Your task to perform on an android device: empty trash in google photos Image 0: 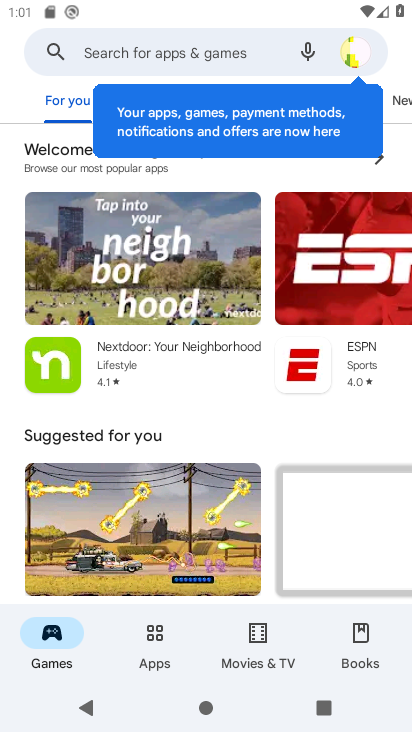
Step 0: press home button
Your task to perform on an android device: empty trash in google photos Image 1: 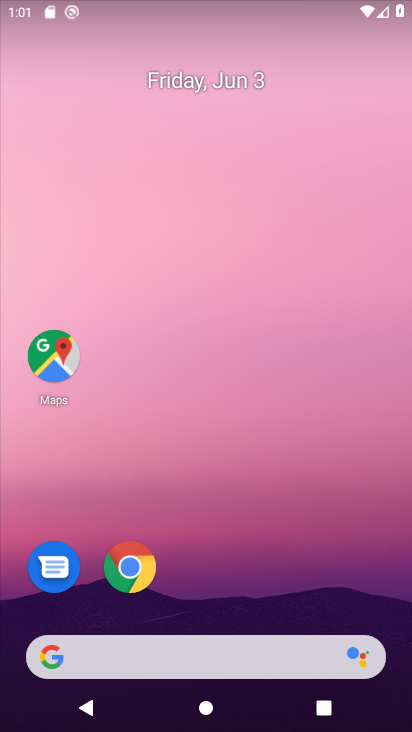
Step 1: drag from (205, 584) to (205, 287)
Your task to perform on an android device: empty trash in google photos Image 2: 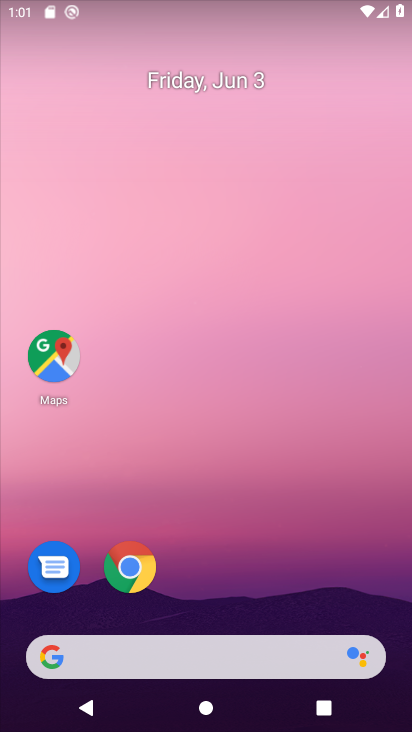
Step 2: drag from (180, 627) to (203, 265)
Your task to perform on an android device: empty trash in google photos Image 3: 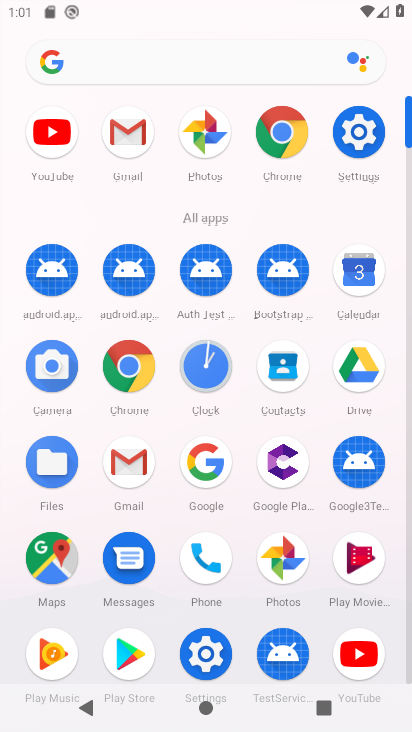
Step 3: click (358, 120)
Your task to perform on an android device: empty trash in google photos Image 4: 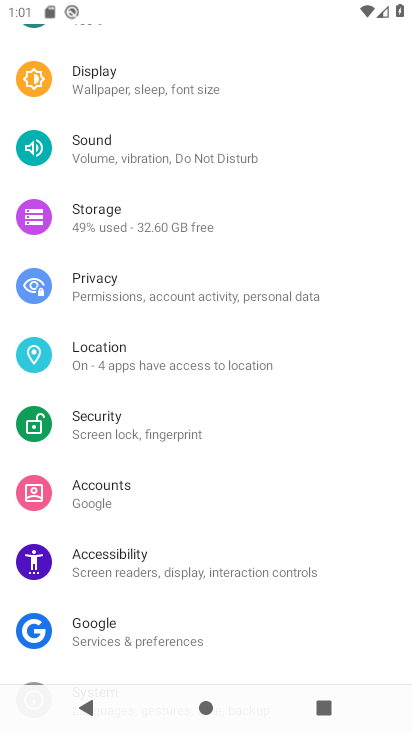
Step 4: press home button
Your task to perform on an android device: empty trash in google photos Image 5: 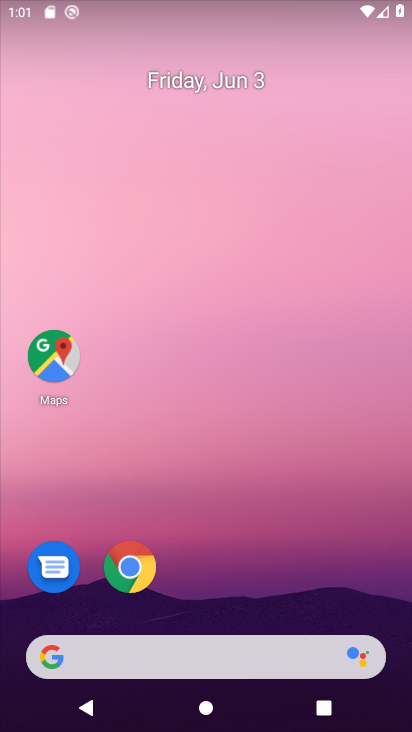
Step 5: drag from (236, 541) to (234, 314)
Your task to perform on an android device: empty trash in google photos Image 6: 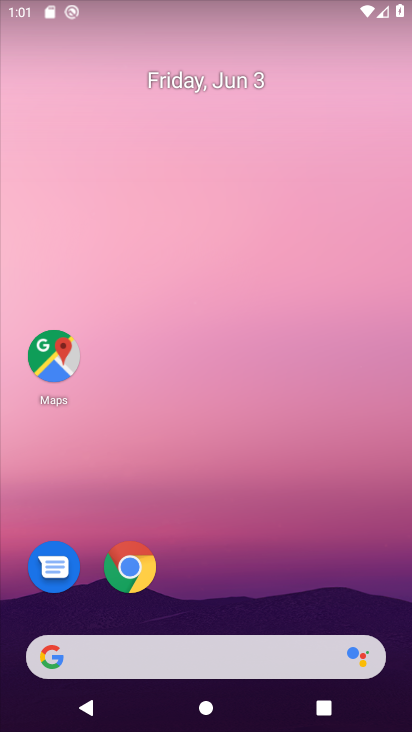
Step 6: click (173, 295)
Your task to perform on an android device: empty trash in google photos Image 7: 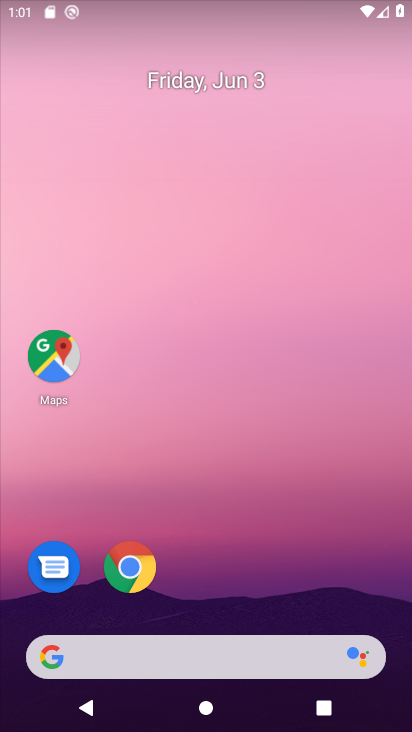
Step 7: drag from (186, 361) to (193, 206)
Your task to perform on an android device: empty trash in google photos Image 8: 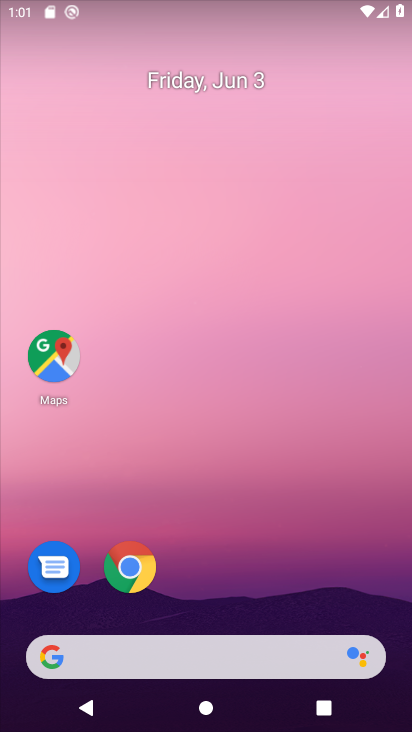
Step 8: drag from (152, 630) to (206, 151)
Your task to perform on an android device: empty trash in google photos Image 9: 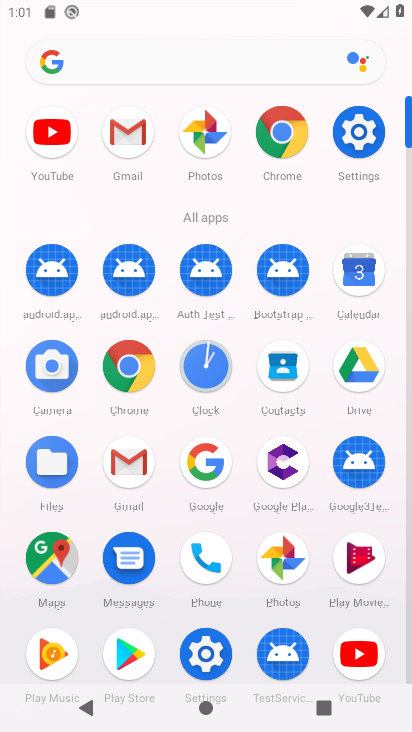
Step 9: click (272, 550)
Your task to perform on an android device: empty trash in google photos Image 10: 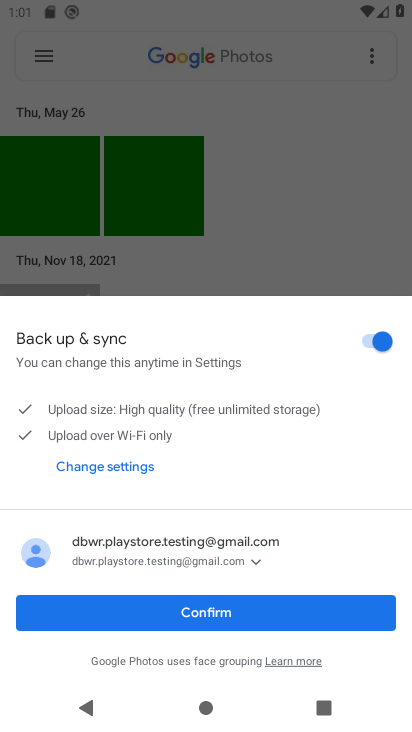
Step 10: click (202, 608)
Your task to perform on an android device: empty trash in google photos Image 11: 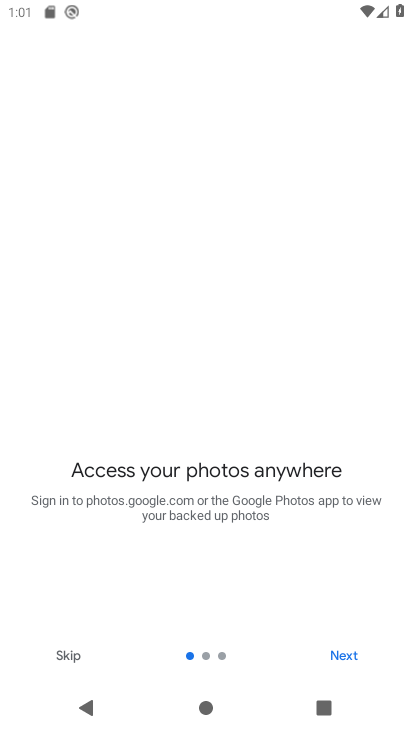
Step 11: click (336, 659)
Your task to perform on an android device: empty trash in google photos Image 12: 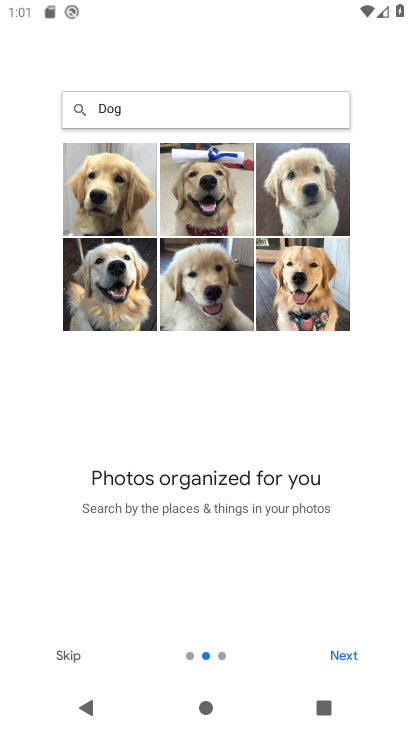
Step 12: click (43, 651)
Your task to perform on an android device: empty trash in google photos Image 13: 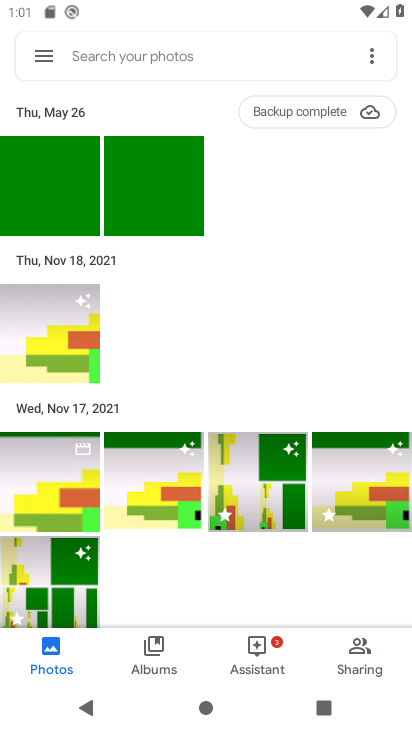
Step 13: click (39, 56)
Your task to perform on an android device: empty trash in google photos Image 14: 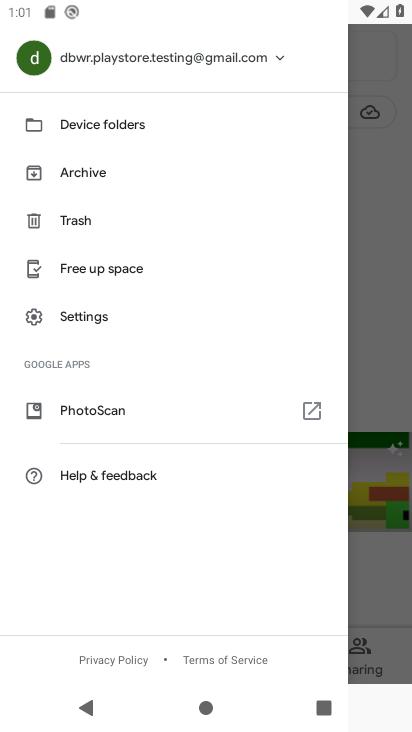
Step 14: click (73, 200)
Your task to perform on an android device: empty trash in google photos Image 15: 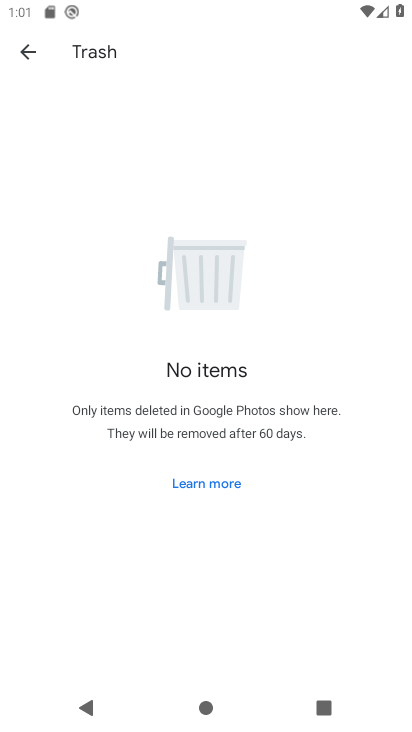
Step 15: task complete